Your task to perform on an android device: change the upload size in google photos Image 0: 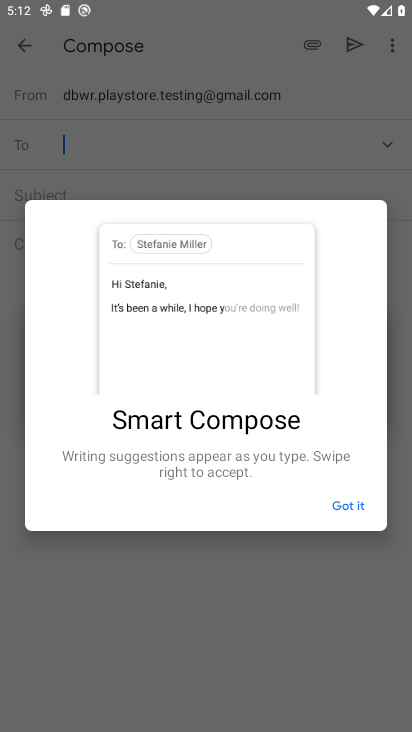
Step 0: press home button
Your task to perform on an android device: change the upload size in google photos Image 1: 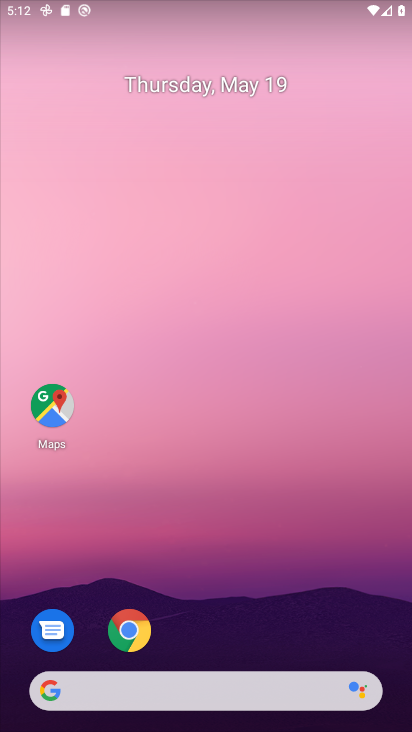
Step 1: drag from (212, 602) to (194, 3)
Your task to perform on an android device: change the upload size in google photos Image 2: 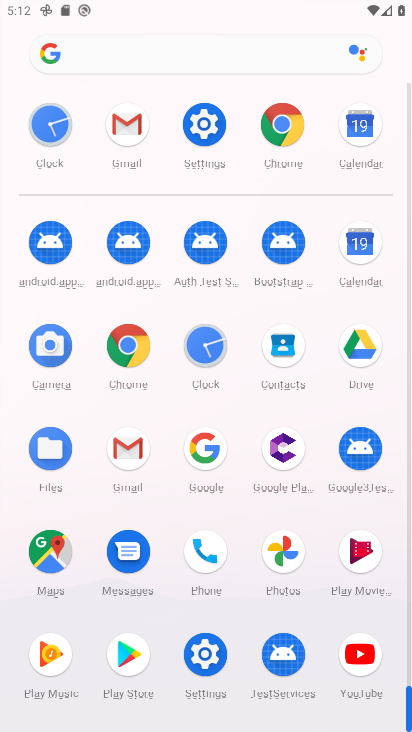
Step 2: click (280, 550)
Your task to perform on an android device: change the upload size in google photos Image 3: 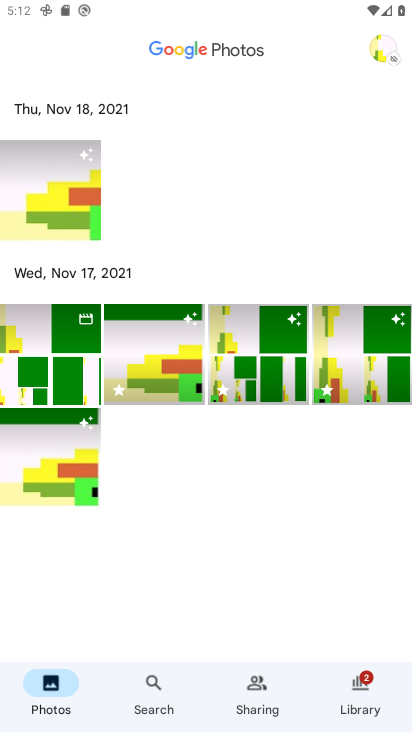
Step 3: click (393, 51)
Your task to perform on an android device: change the upload size in google photos Image 4: 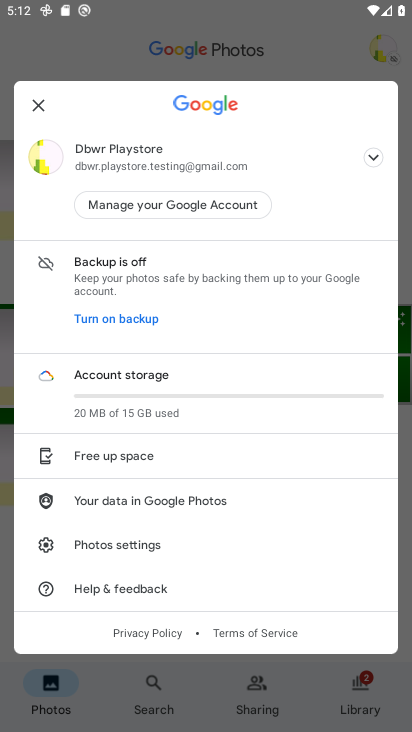
Step 4: click (114, 544)
Your task to perform on an android device: change the upload size in google photos Image 5: 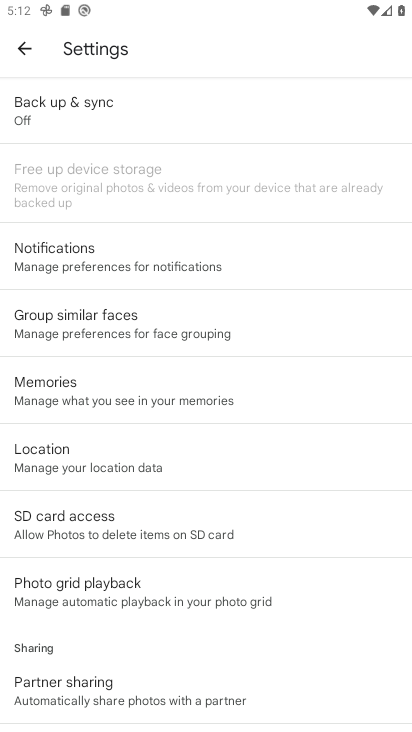
Step 5: drag from (145, 633) to (234, 123)
Your task to perform on an android device: change the upload size in google photos Image 6: 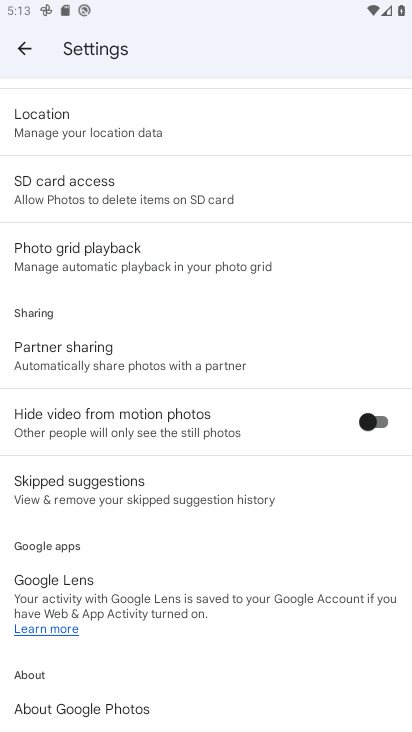
Step 6: drag from (235, 138) to (217, 629)
Your task to perform on an android device: change the upload size in google photos Image 7: 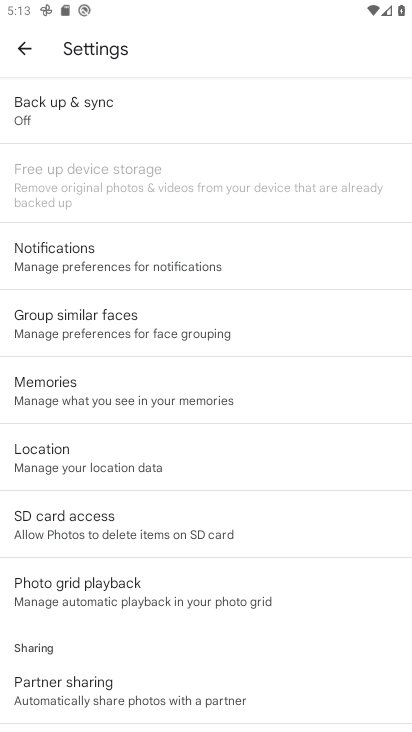
Step 7: click (123, 120)
Your task to perform on an android device: change the upload size in google photos Image 8: 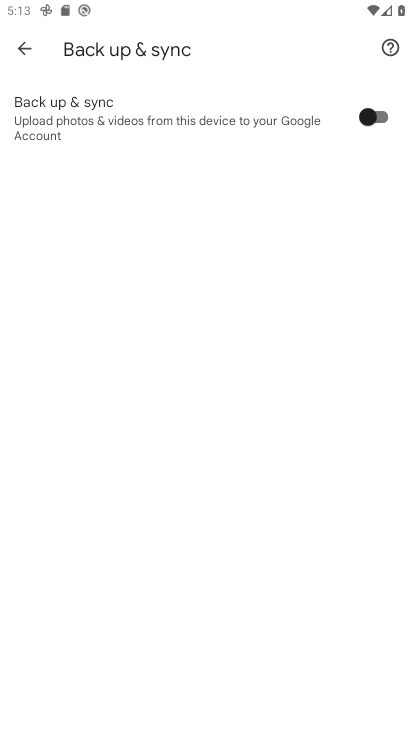
Step 8: click (35, 48)
Your task to perform on an android device: change the upload size in google photos Image 9: 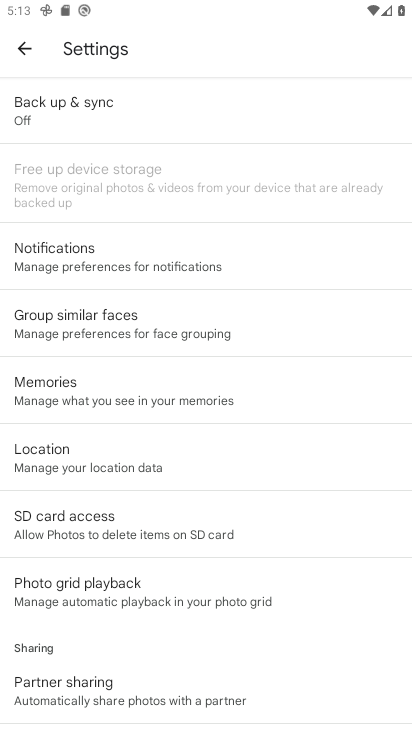
Step 9: drag from (201, 544) to (192, 161)
Your task to perform on an android device: change the upload size in google photos Image 10: 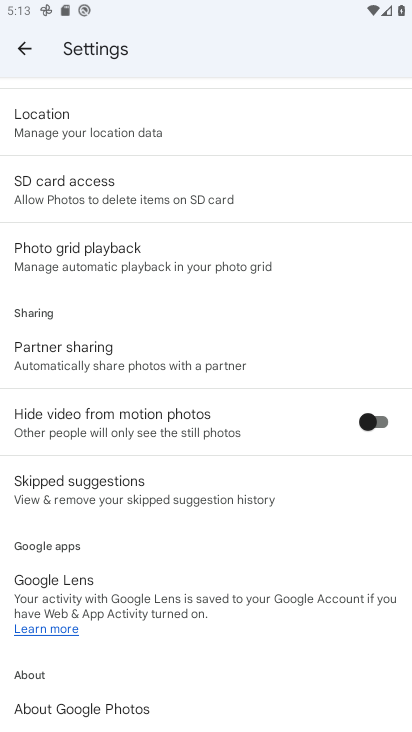
Step 10: drag from (87, 568) to (124, 139)
Your task to perform on an android device: change the upload size in google photos Image 11: 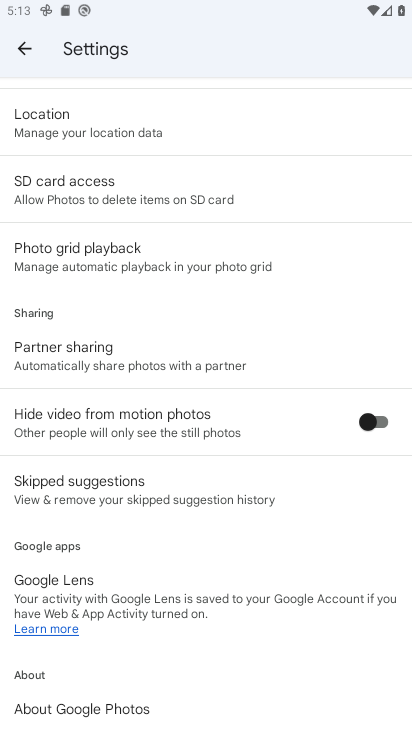
Step 11: click (7, 43)
Your task to perform on an android device: change the upload size in google photos Image 12: 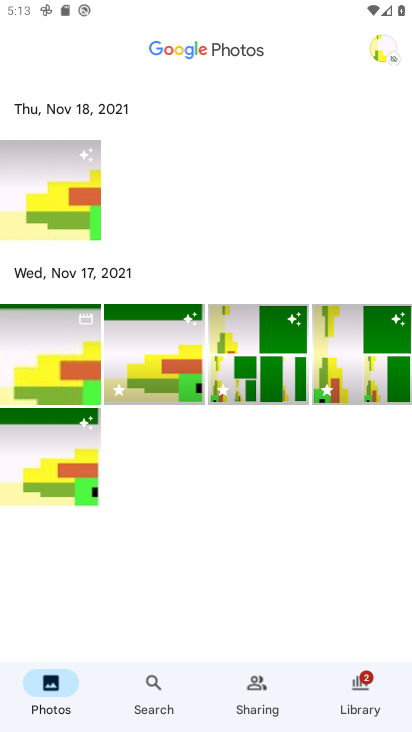
Step 12: click (382, 47)
Your task to perform on an android device: change the upload size in google photos Image 13: 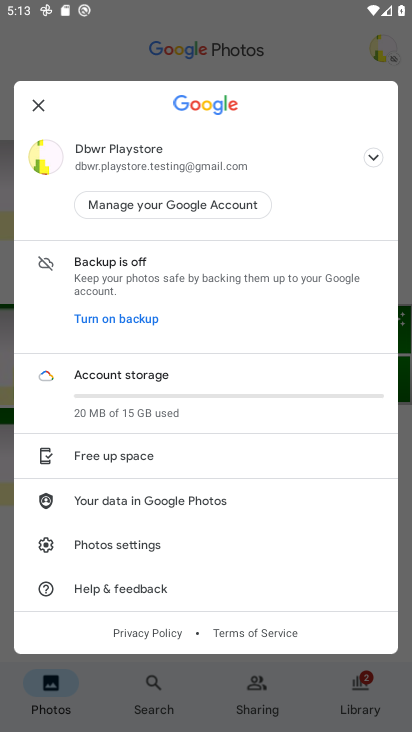
Step 13: click (106, 548)
Your task to perform on an android device: change the upload size in google photos Image 14: 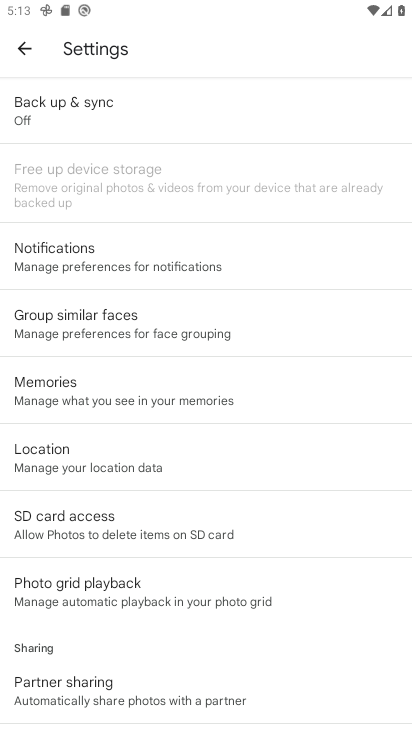
Step 14: click (111, 129)
Your task to perform on an android device: change the upload size in google photos Image 15: 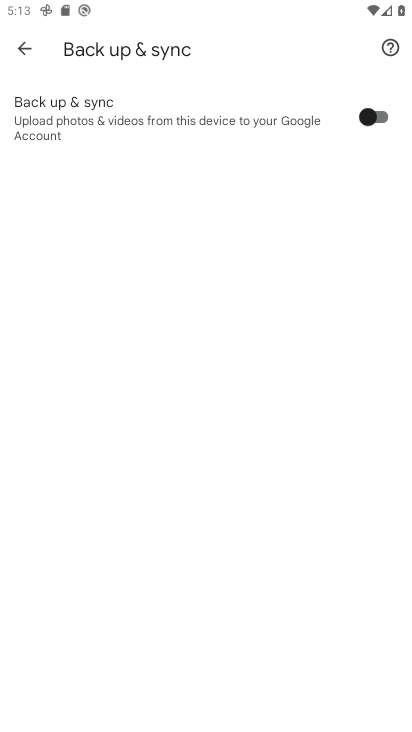
Step 15: click (27, 52)
Your task to perform on an android device: change the upload size in google photos Image 16: 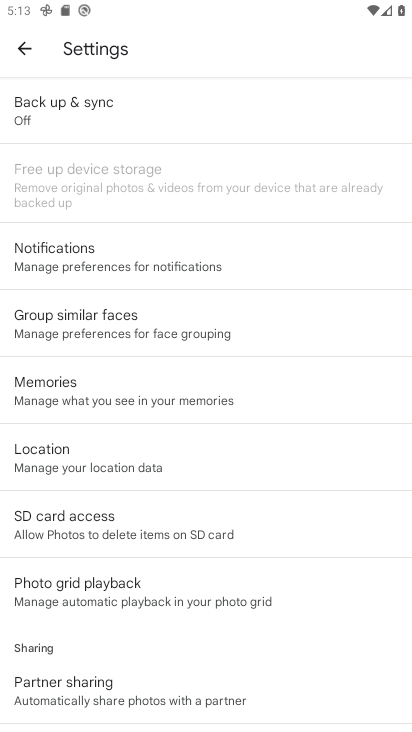
Step 16: drag from (182, 664) to (209, 228)
Your task to perform on an android device: change the upload size in google photos Image 17: 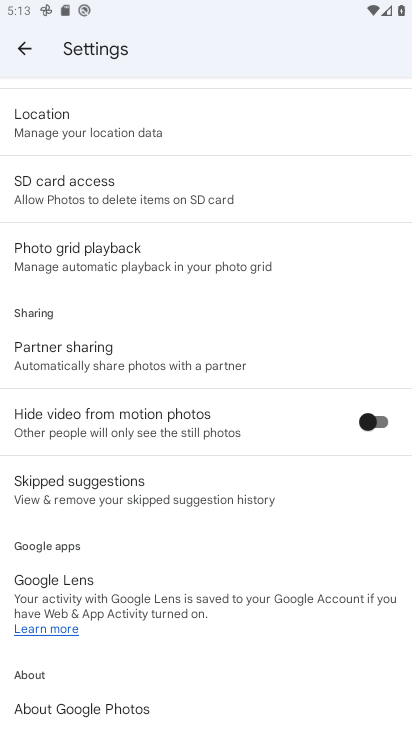
Step 17: drag from (150, 545) to (158, 239)
Your task to perform on an android device: change the upload size in google photos Image 18: 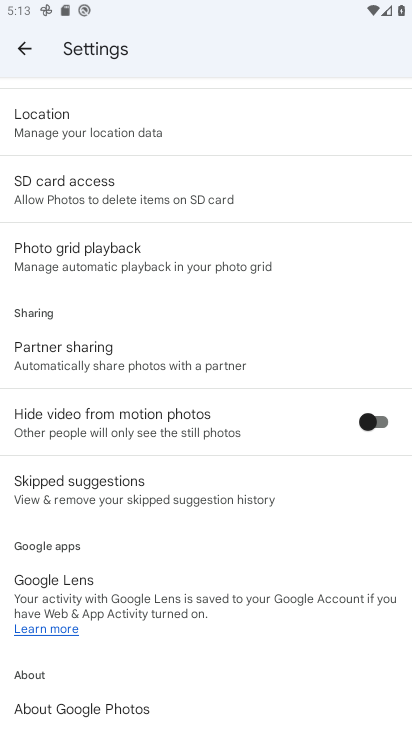
Step 18: click (148, 490)
Your task to perform on an android device: change the upload size in google photos Image 19: 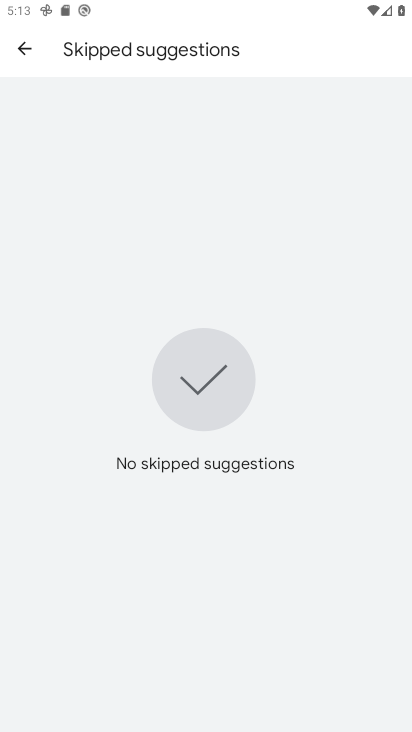
Step 19: click (34, 46)
Your task to perform on an android device: change the upload size in google photos Image 20: 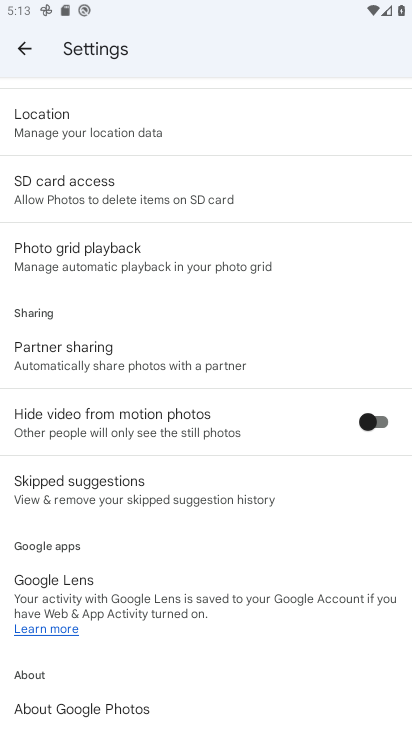
Step 20: drag from (190, 181) to (210, 565)
Your task to perform on an android device: change the upload size in google photos Image 21: 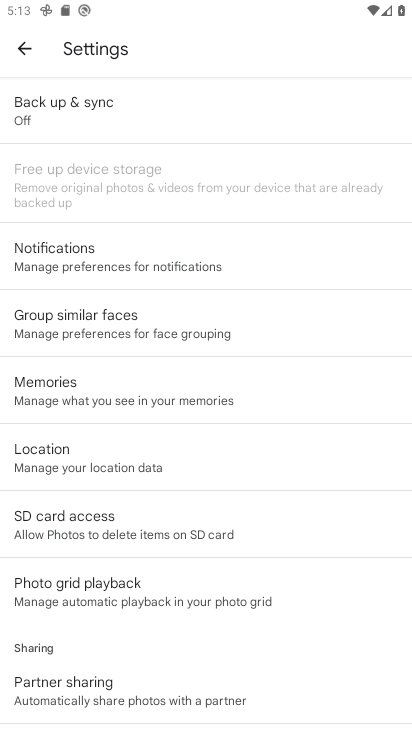
Step 21: click (178, 117)
Your task to perform on an android device: change the upload size in google photos Image 22: 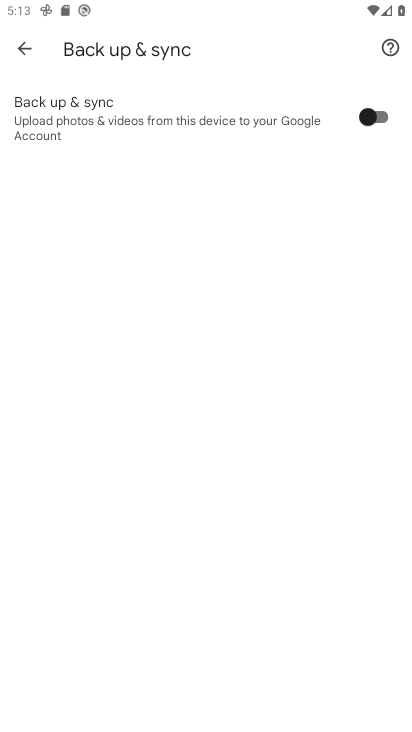
Step 22: click (21, 50)
Your task to perform on an android device: change the upload size in google photos Image 23: 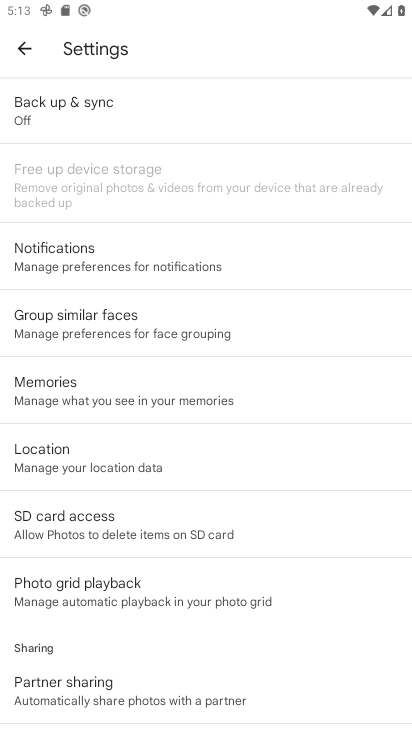
Step 23: click (169, 266)
Your task to perform on an android device: change the upload size in google photos Image 24: 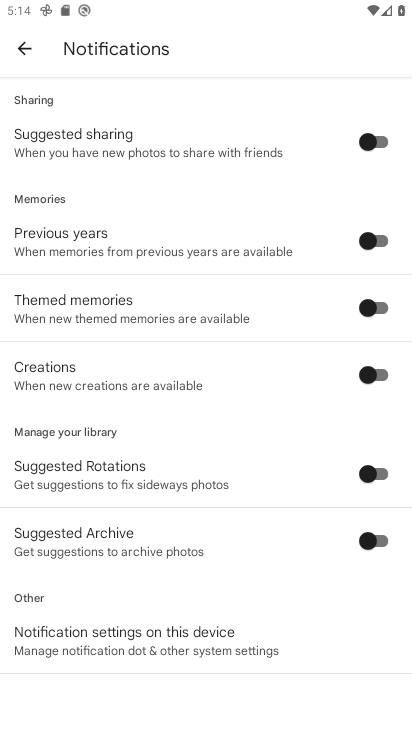
Step 24: drag from (153, 631) to (132, 158)
Your task to perform on an android device: change the upload size in google photos Image 25: 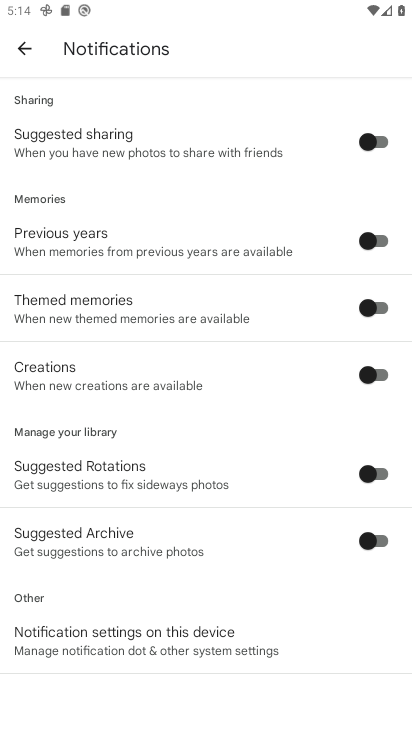
Step 25: click (129, 628)
Your task to perform on an android device: change the upload size in google photos Image 26: 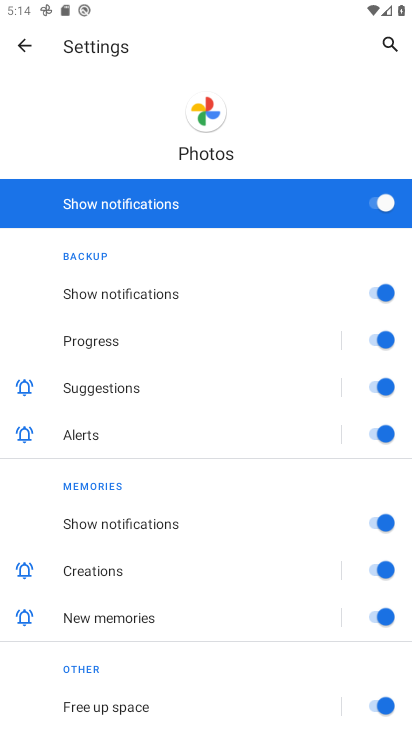
Step 26: click (24, 38)
Your task to perform on an android device: change the upload size in google photos Image 27: 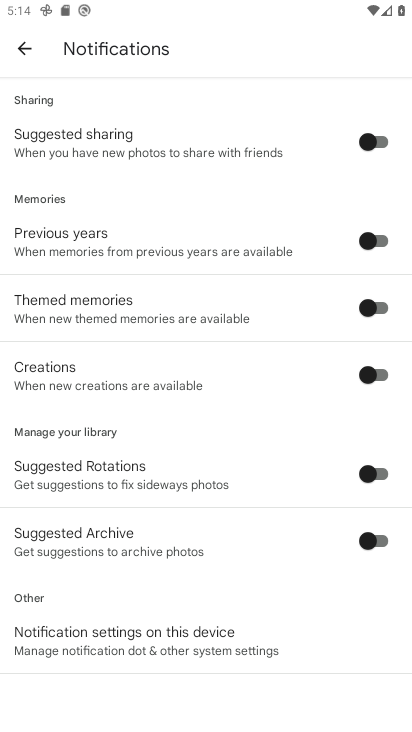
Step 27: drag from (115, 109) to (127, 586)
Your task to perform on an android device: change the upload size in google photos Image 28: 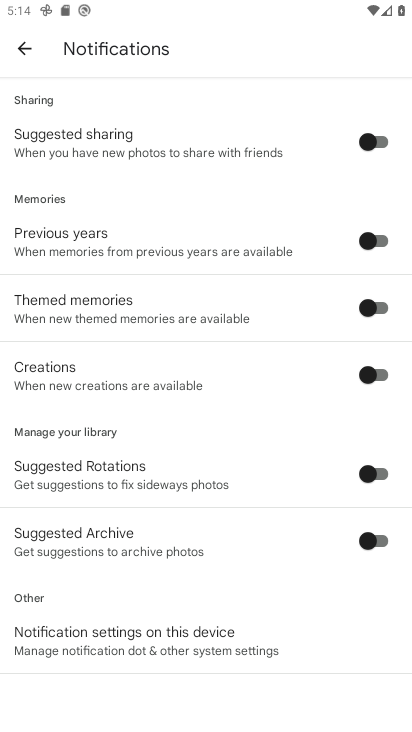
Step 28: click (30, 54)
Your task to perform on an android device: change the upload size in google photos Image 29: 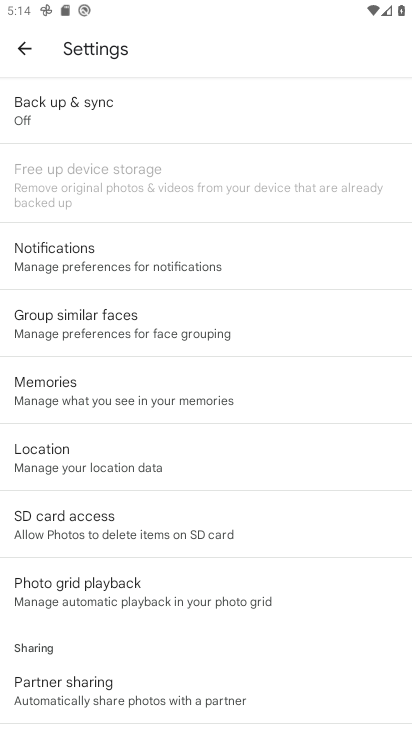
Step 29: task complete